Your task to perform on an android device: Open notification settings Image 0: 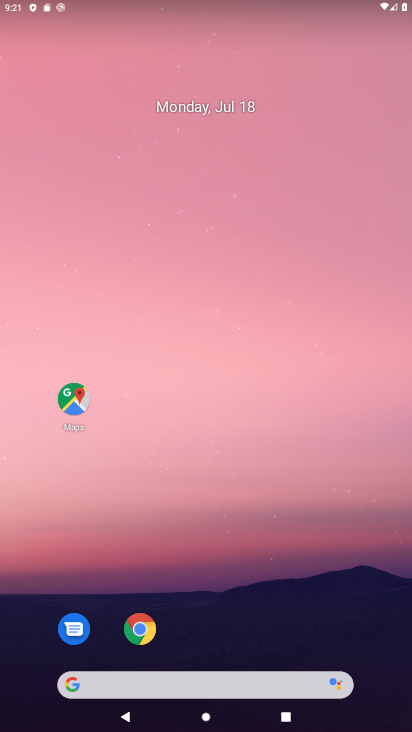
Step 0: drag from (212, 681) to (175, 139)
Your task to perform on an android device: Open notification settings Image 1: 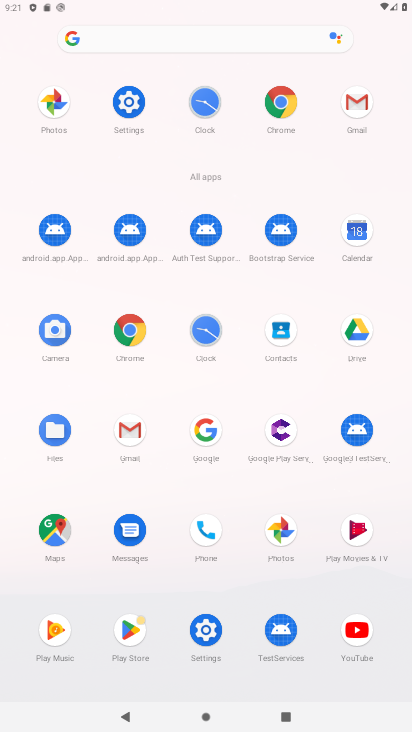
Step 1: click (205, 633)
Your task to perform on an android device: Open notification settings Image 2: 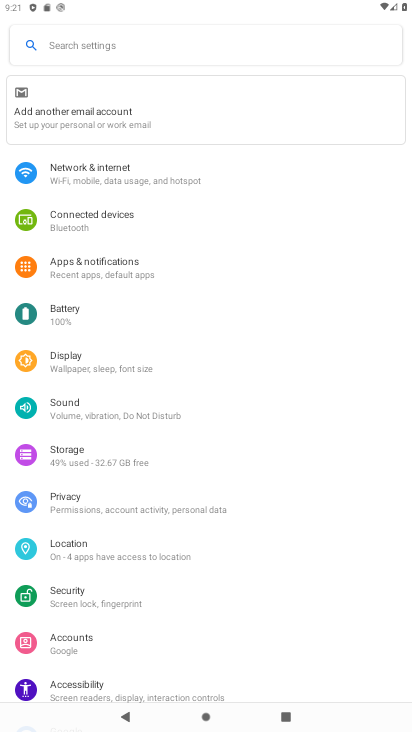
Step 2: click (87, 273)
Your task to perform on an android device: Open notification settings Image 3: 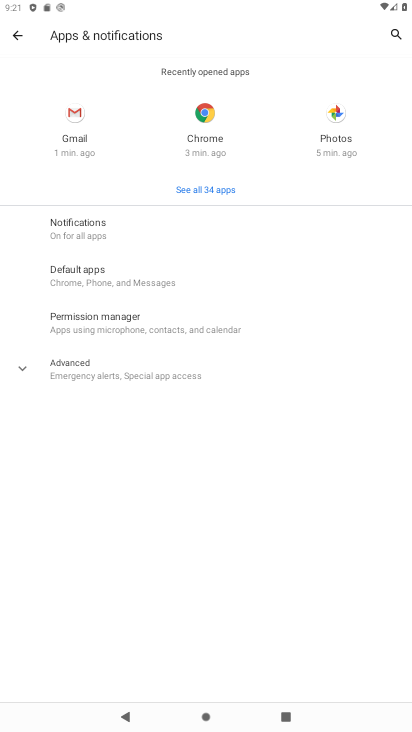
Step 3: task complete